Your task to perform on an android device: change the clock display to digital Image 0: 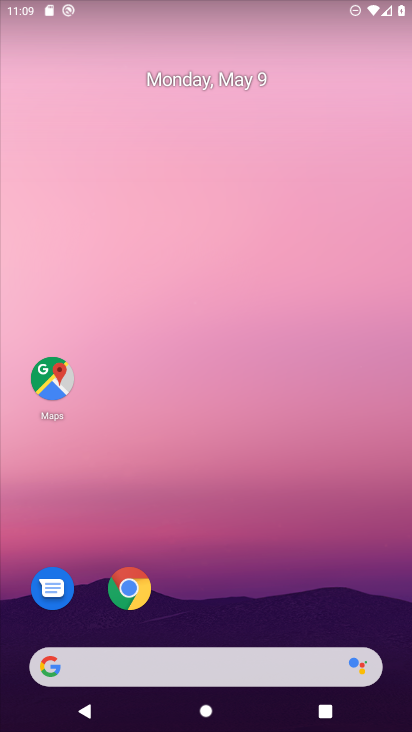
Step 0: click (234, 575)
Your task to perform on an android device: change the clock display to digital Image 1: 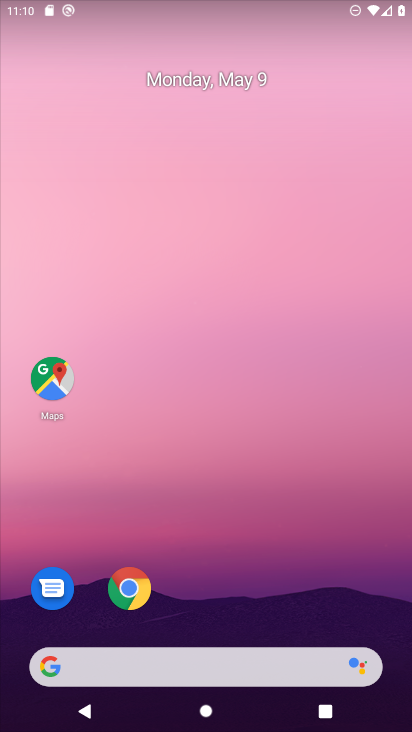
Step 1: drag from (234, 550) to (228, 76)
Your task to perform on an android device: change the clock display to digital Image 2: 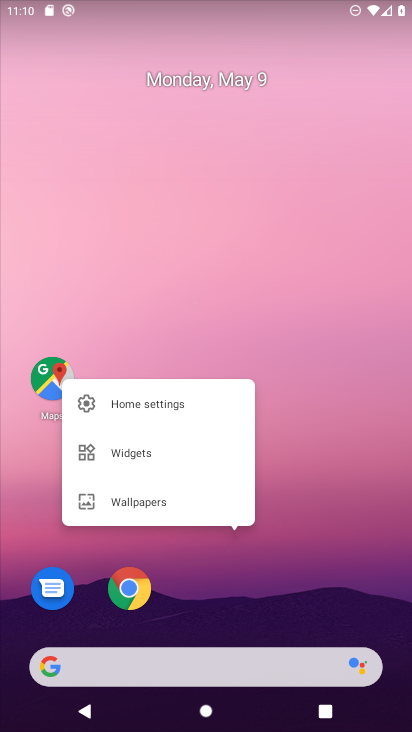
Step 2: click (261, 570)
Your task to perform on an android device: change the clock display to digital Image 3: 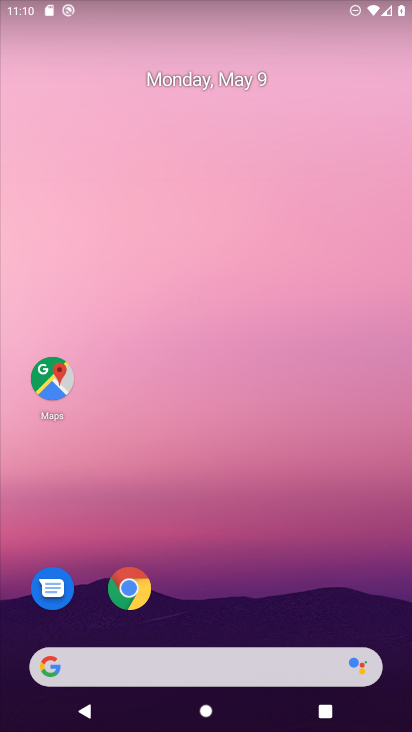
Step 3: drag from (261, 570) to (207, 195)
Your task to perform on an android device: change the clock display to digital Image 4: 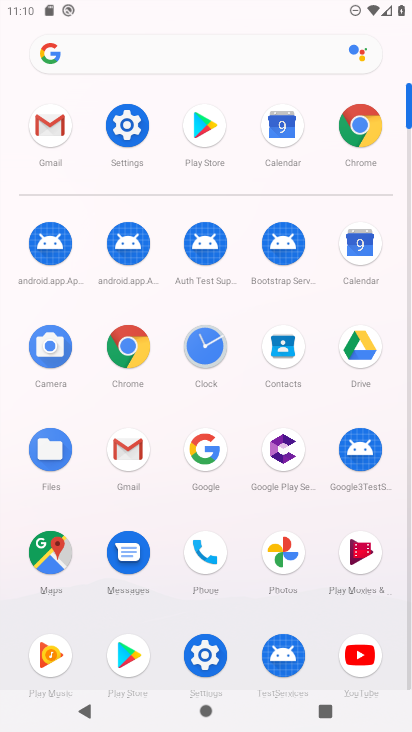
Step 4: click (116, 163)
Your task to perform on an android device: change the clock display to digital Image 5: 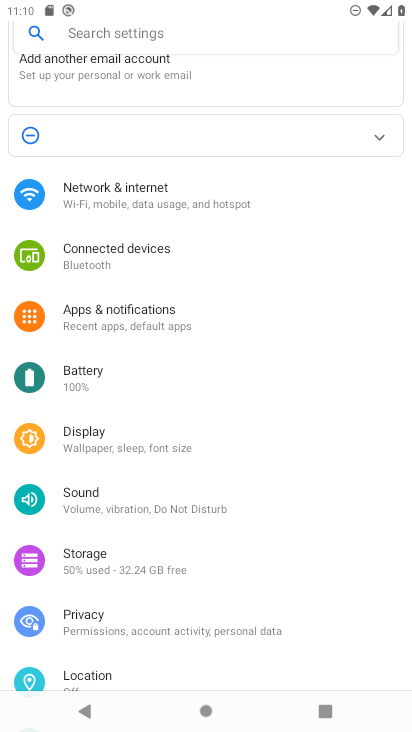
Step 5: press home button
Your task to perform on an android device: change the clock display to digital Image 6: 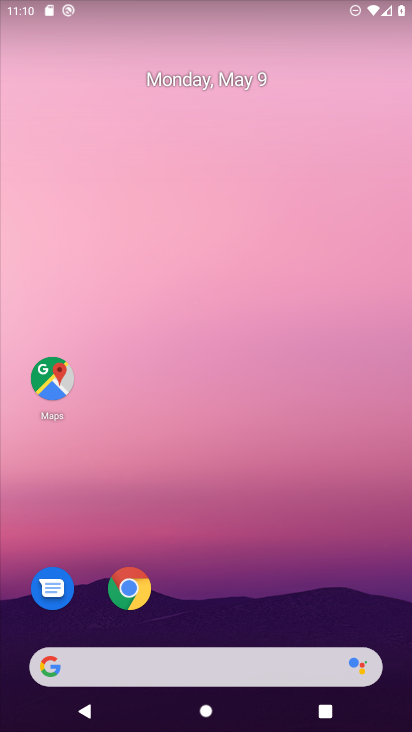
Step 6: drag from (264, 554) to (267, 197)
Your task to perform on an android device: change the clock display to digital Image 7: 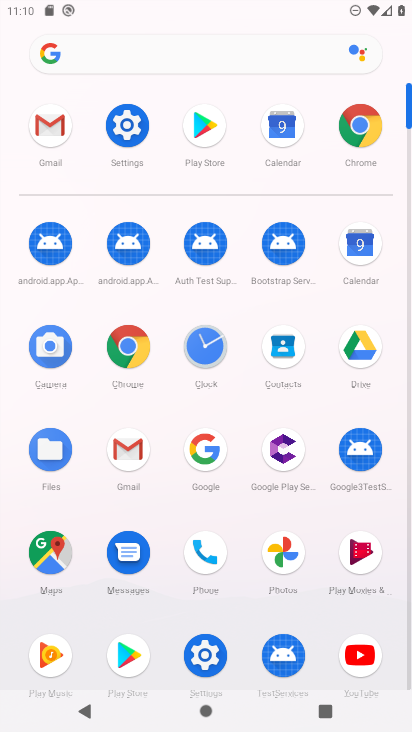
Step 7: click (220, 364)
Your task to perform on an android device: change the clock display to digital Image 8: 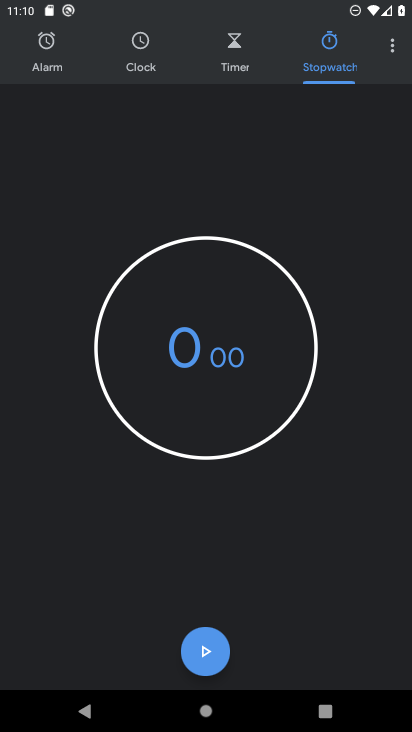
Step 8: click (388, 48)
Your task to perform on an android device: change the clock display to digital Image 9: 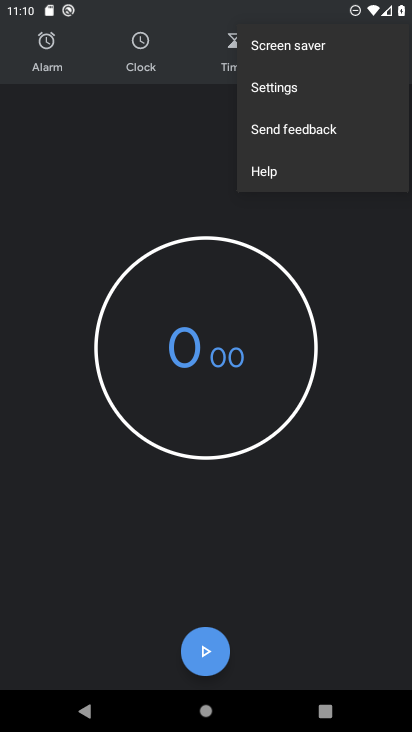
Step 9: click (323, 89)
Your task to perform on an android device: change the clock display to digital Image 10: 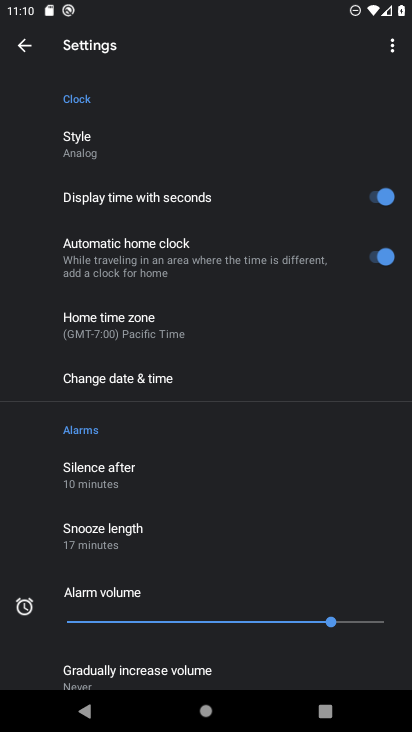
Step 10: click (83, 141)
Your task to perform on an android device: change the clock display to digital Image 11: 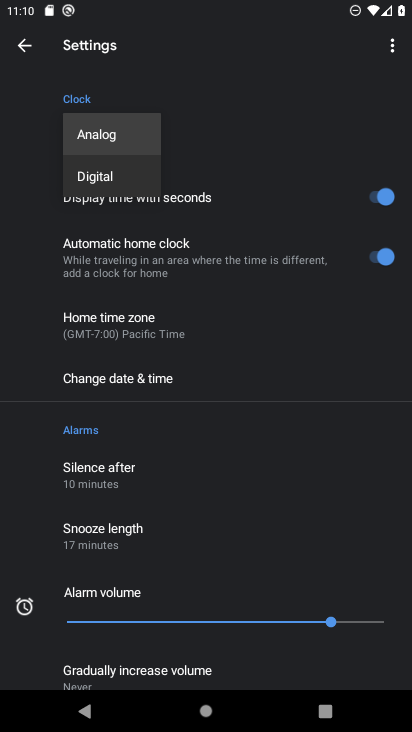
Step 11: click (134, 180)
Your task to perform on an android device: change the clock display to digital Image 12: 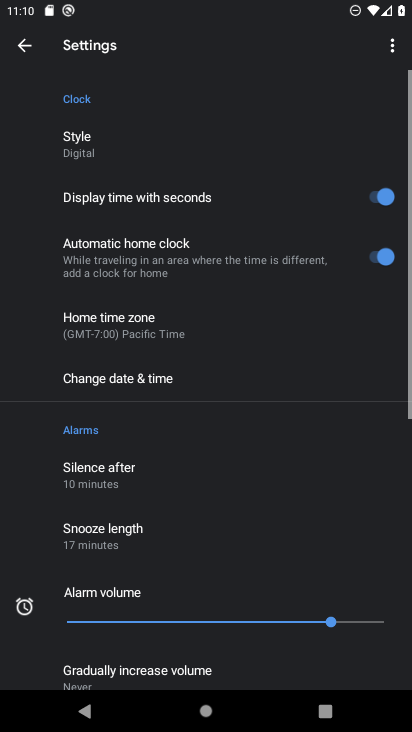
Step 12: task complete